Your task to perform on an android device: Open Google Maps and go to "Timeline" Image 0: 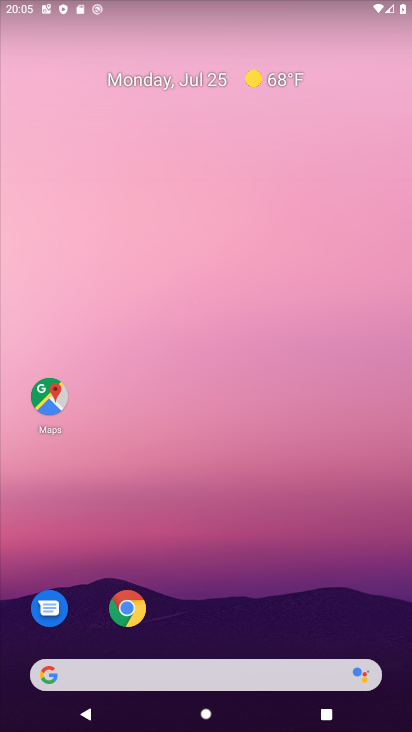
Step 0: click (240, 643)
Your task to perform on an android device: Open Google Maps and go to "Timeline" Image 1: 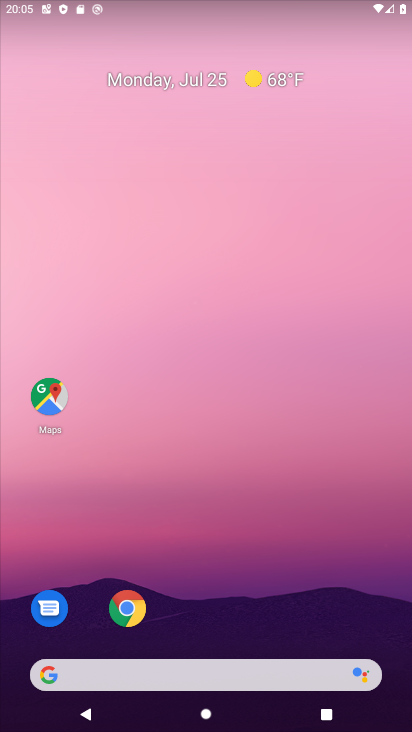
Step 1: click (48, 397)
Your task to perform on an android device: Open Google Maps and go to "Timeline" Image 2: 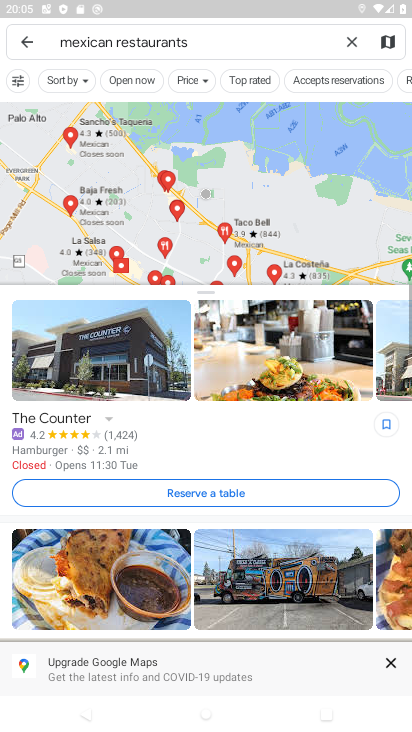
Step 2: click (350, 43)
Your task to perform on an android device: Open Google Maps and go to "Timeline" Image 3: 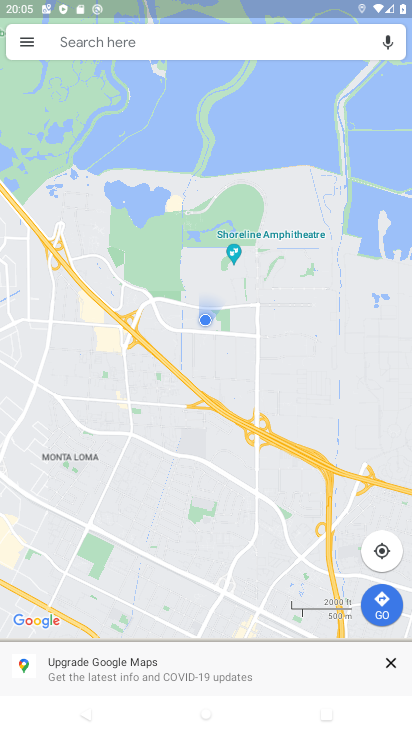
Step 3: click (28, 39)
Your task to perform on an android device: Open Google Maps and go to "Timeline" Image 4: 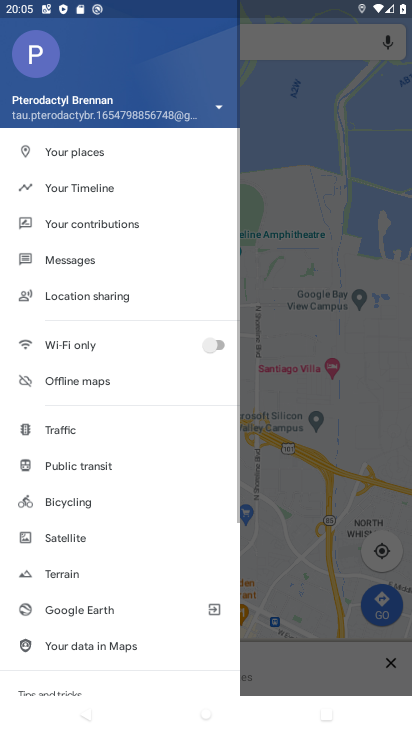
Step 4: click (46, 195)
Your task to perform on an android device: Open Google Maps and go to "Timeline" Image 5: 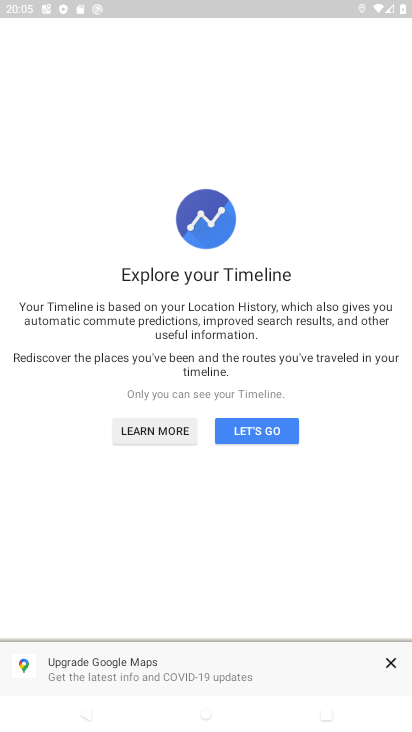
Step 5: click (257, 435)
Your task to perform on an android device: Open Google Maps and go to "Timeline" Image 6: 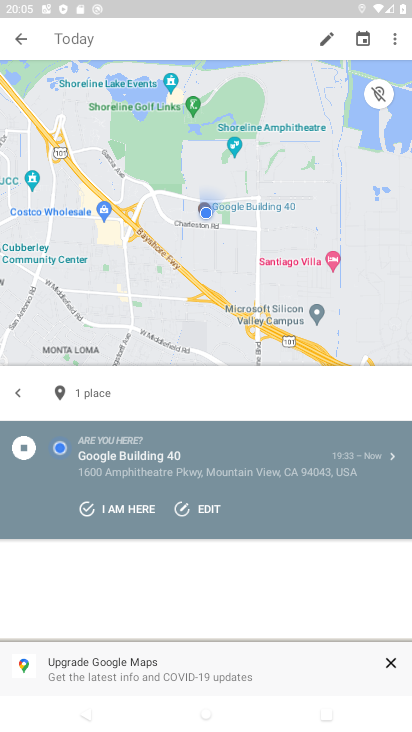
Step 6: task complete